Your task to perform on an android device: open sync settings in chrome Image 0: 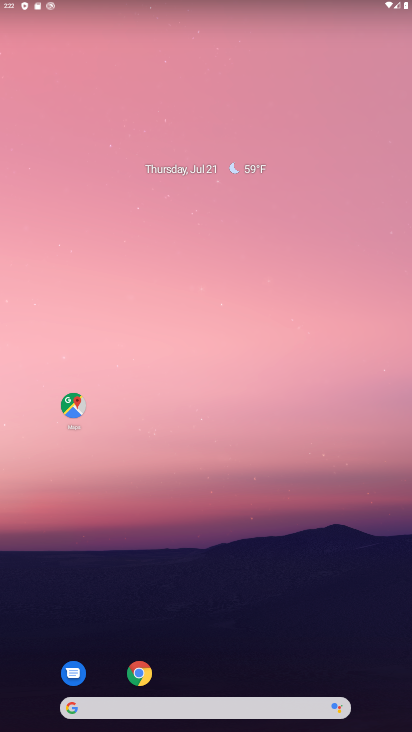
Step 0: click (140, 674)
Your task to perform on an android device: open sync settings in chrome Image 1: 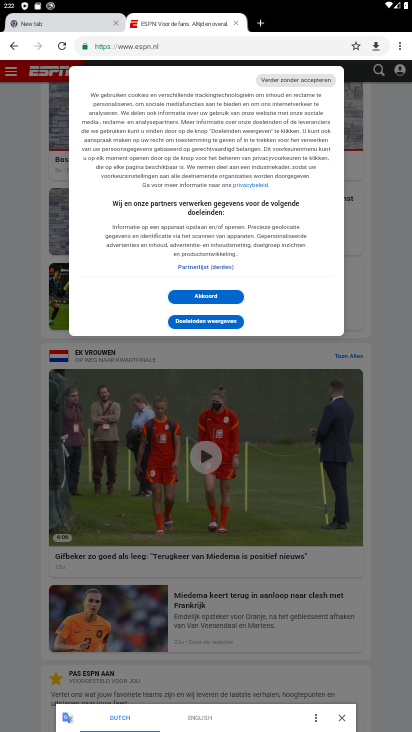
Step 1: click (399, 47)
Your task to perform on an android device: open sync settings in chrome Image 2: 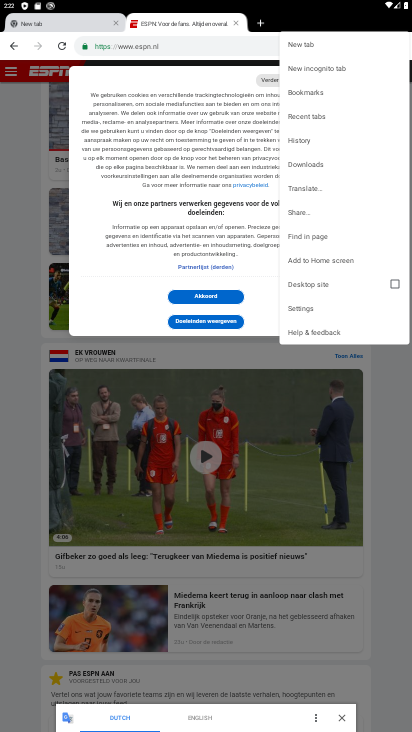
Step 2: click (298, 308)
Your task to perform on an android device: open sync settings in chrome Image 3: 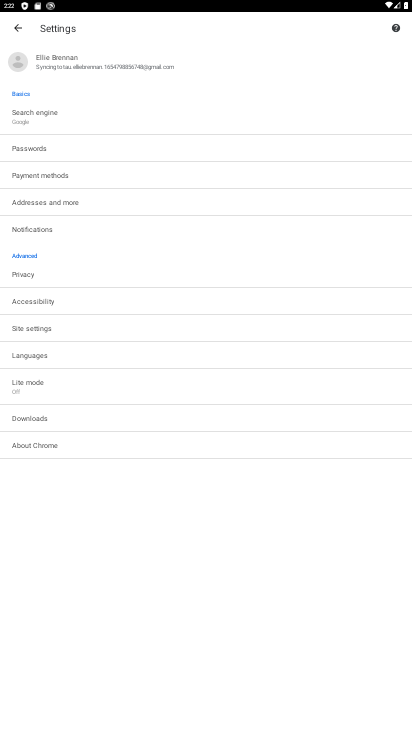
Step 3: click (58, 61)
Your task to perform on an android device: open sync settings in chrome Image 4: 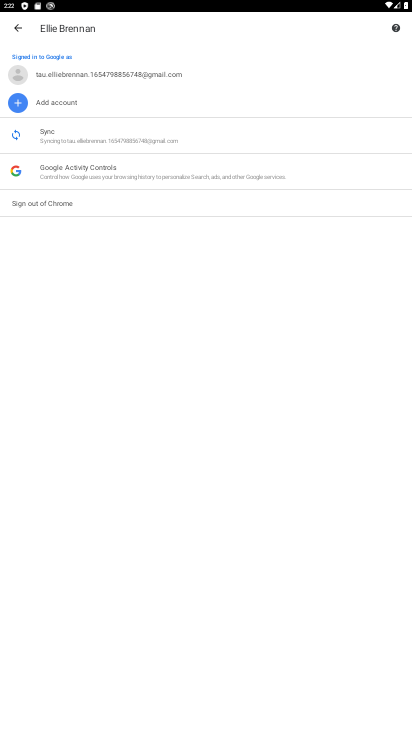
Step 4: click (57, 125)
Your task to perform on an android device: open sync settings in chrome Image 5: 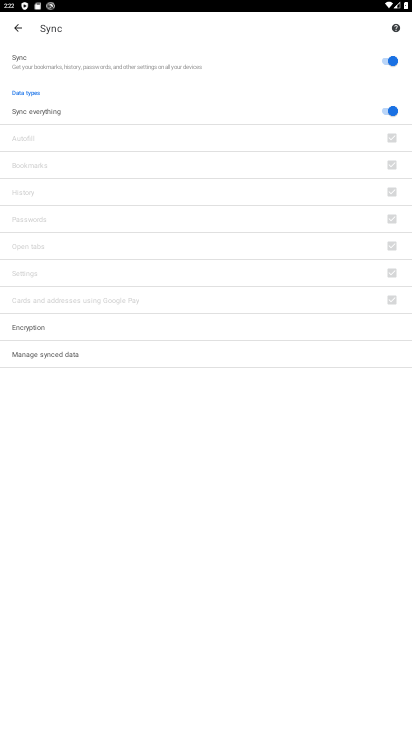
Step 5: task complete